Your task to perform on an android device: open app "Booking.com: Hotels and more" Image 0: 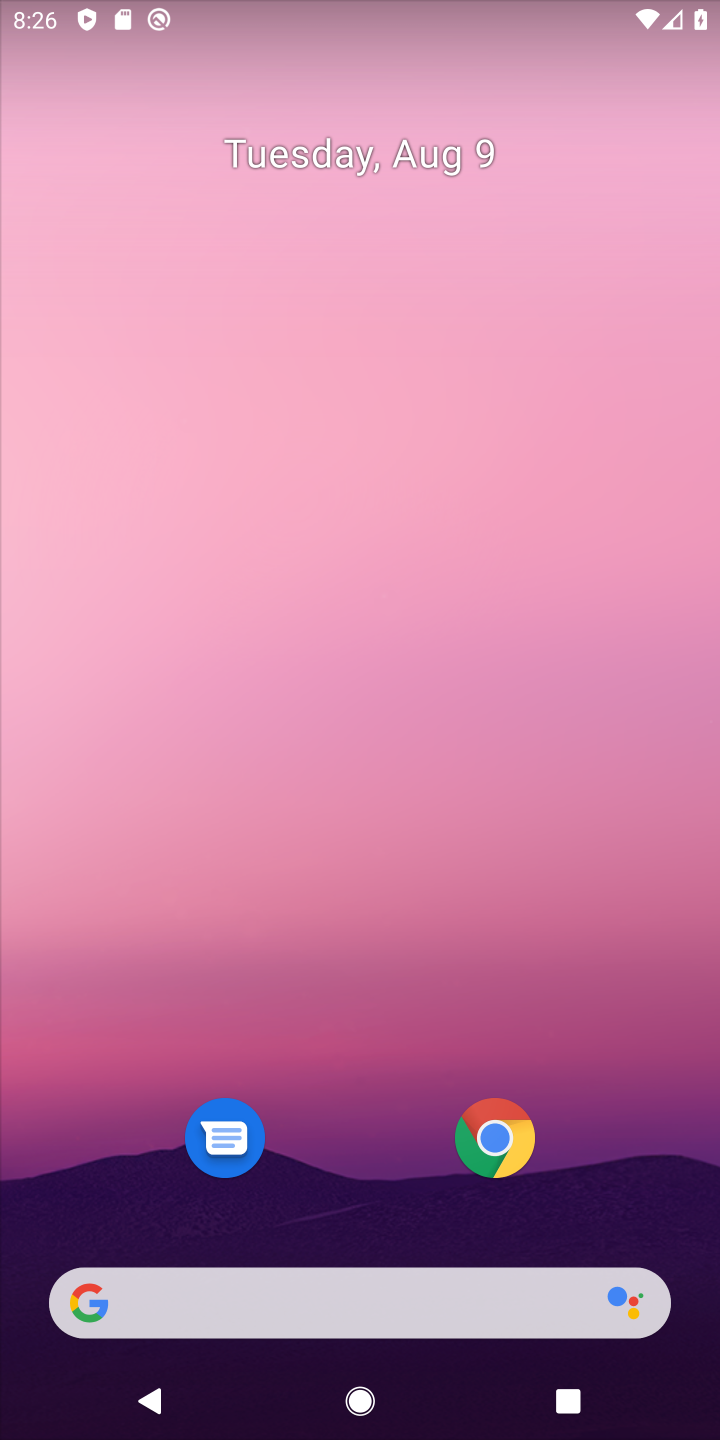
Step 0: drag from (361, 788) to (445, 274)
Your task to perform on an android device: open app "Booking.com: Hotels and more" Image 1: 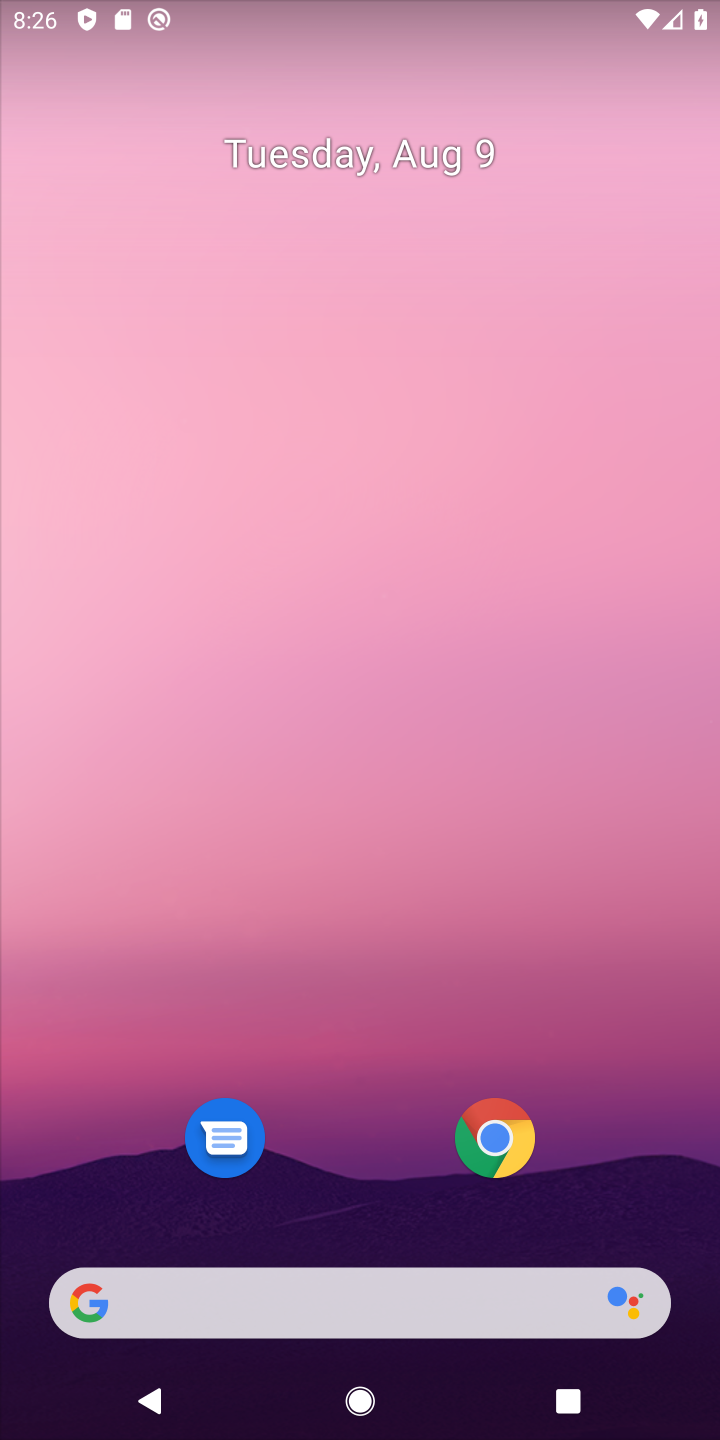
Step 1: drag from (365, 1075) to (522, 409)
Your task to perform on an android device: open app "Booking.com: Hotels and more" Image 2: 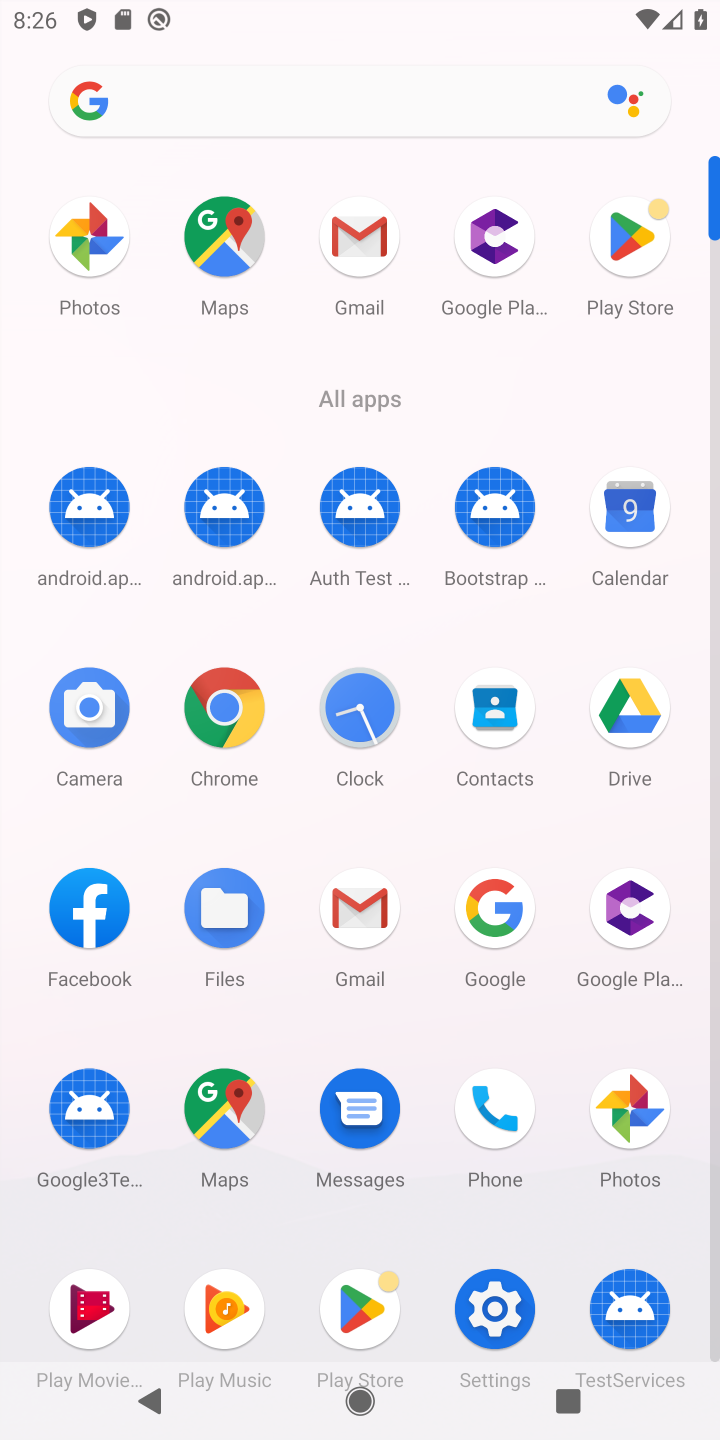
Step 2: click (370, 1328)
Your task to perform on an android device: open app "Booking.com: Hotels and more" Image 3: 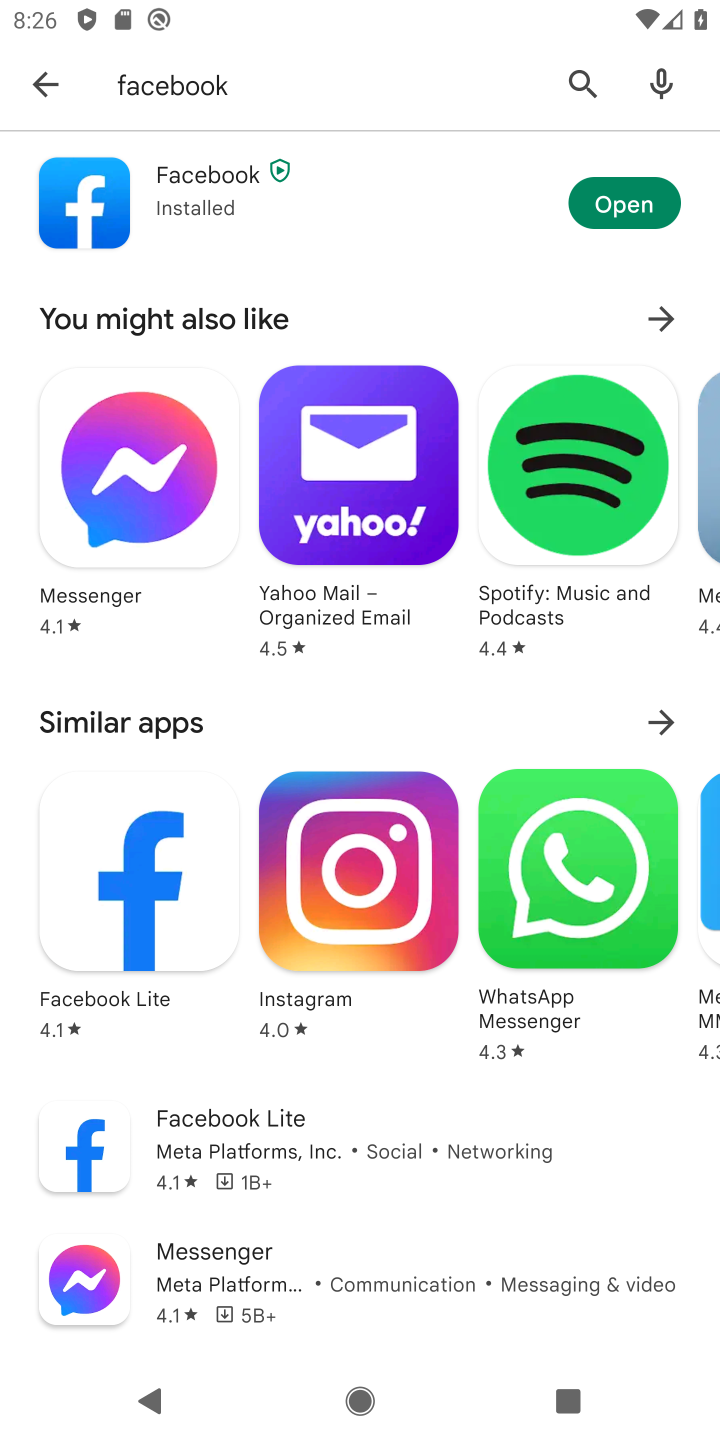
Step 3: click (556, 80)
Your task to perform on an android device: open app "Booking.com: Hotels and more" Image 4: 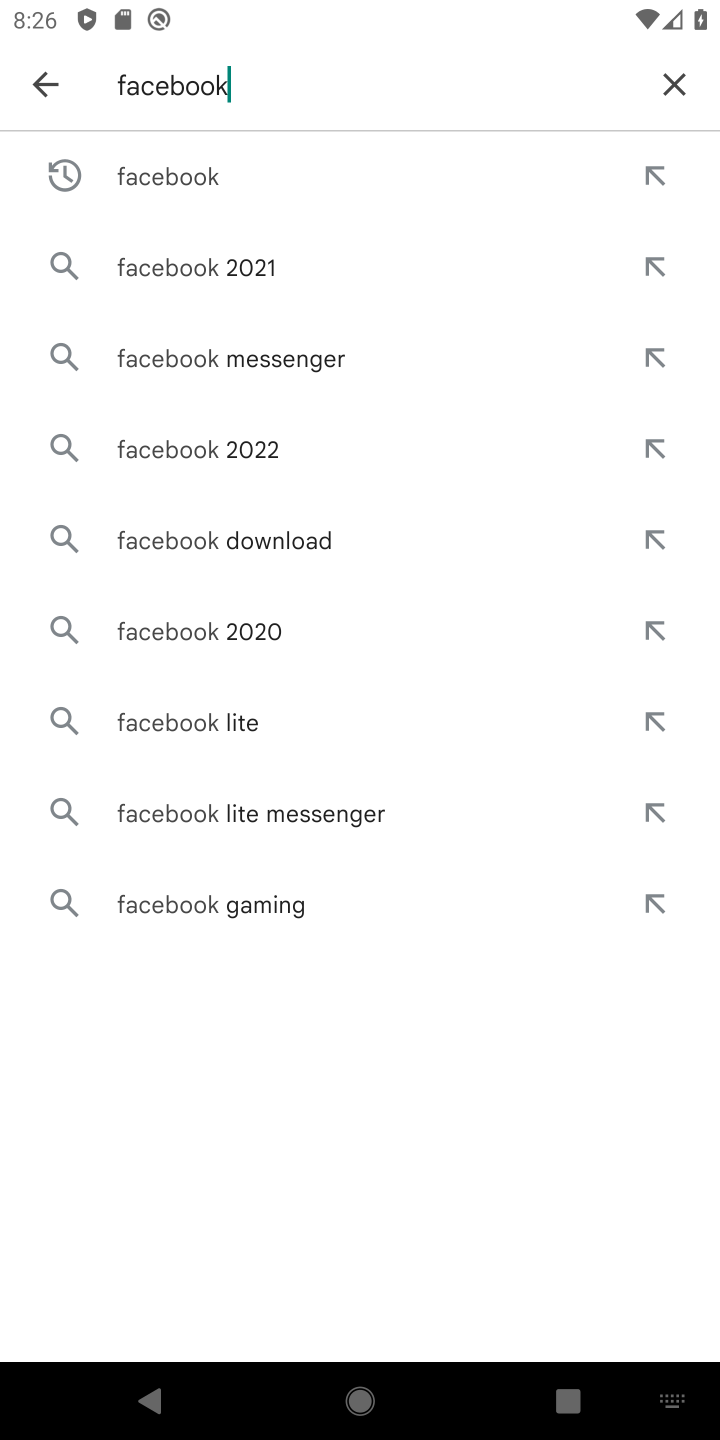
Step 4: click (670, 76)
Your task to perform on an android device: open app "Booking.com: Hotels and more" Image 5: 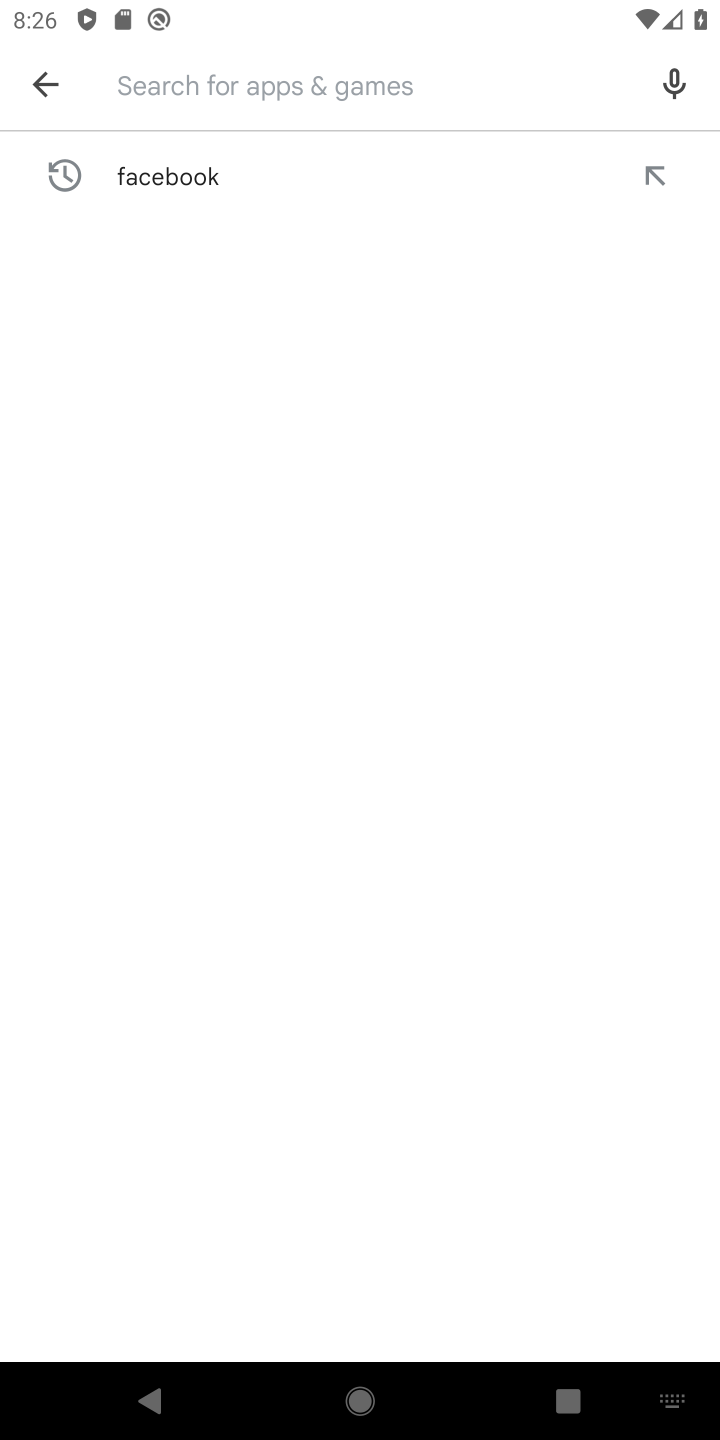
Step 5: type "Booking.com: Hotels and more"
Your task to perform on an android device: open app "Booking.com: Hotels and more" Image 6: 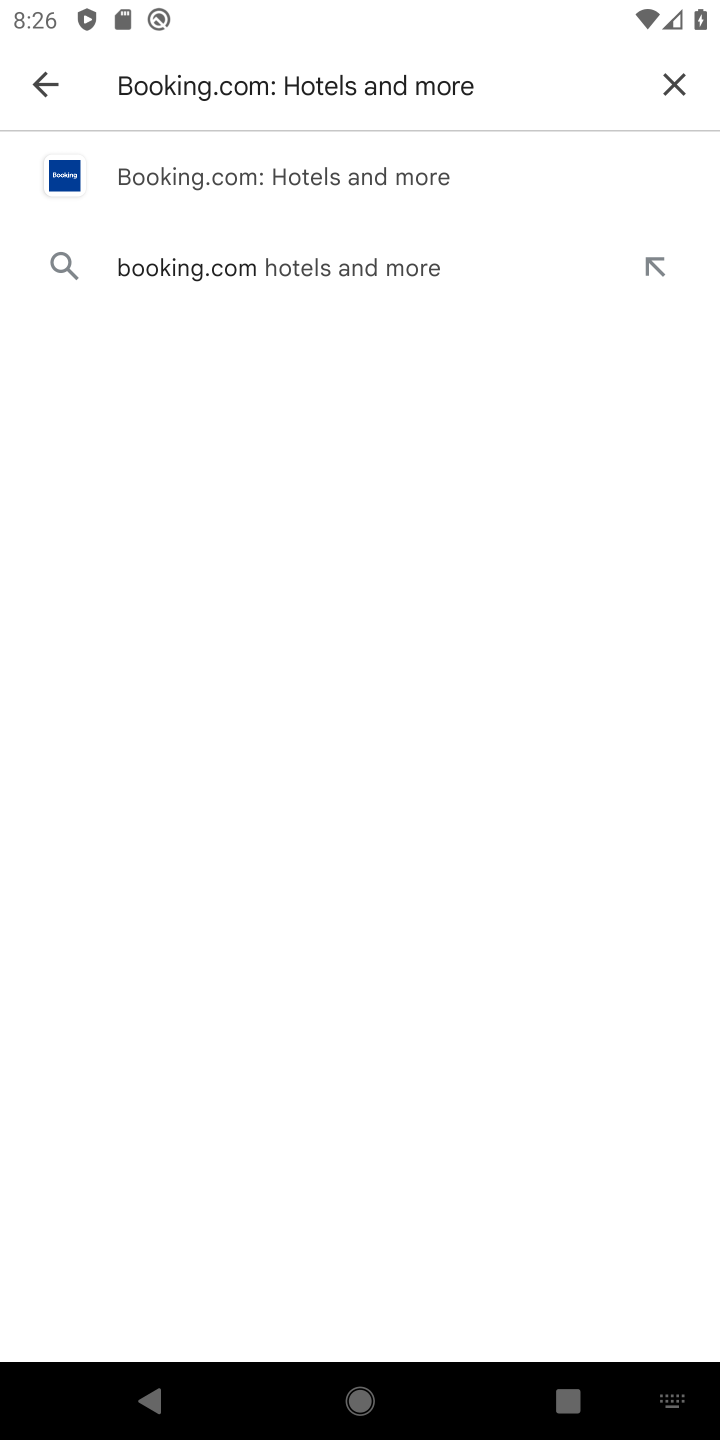
Step 6: click (237, 176)
Your task to perform on an android device: open app "Booking.com: Hotels and more" Image 7: 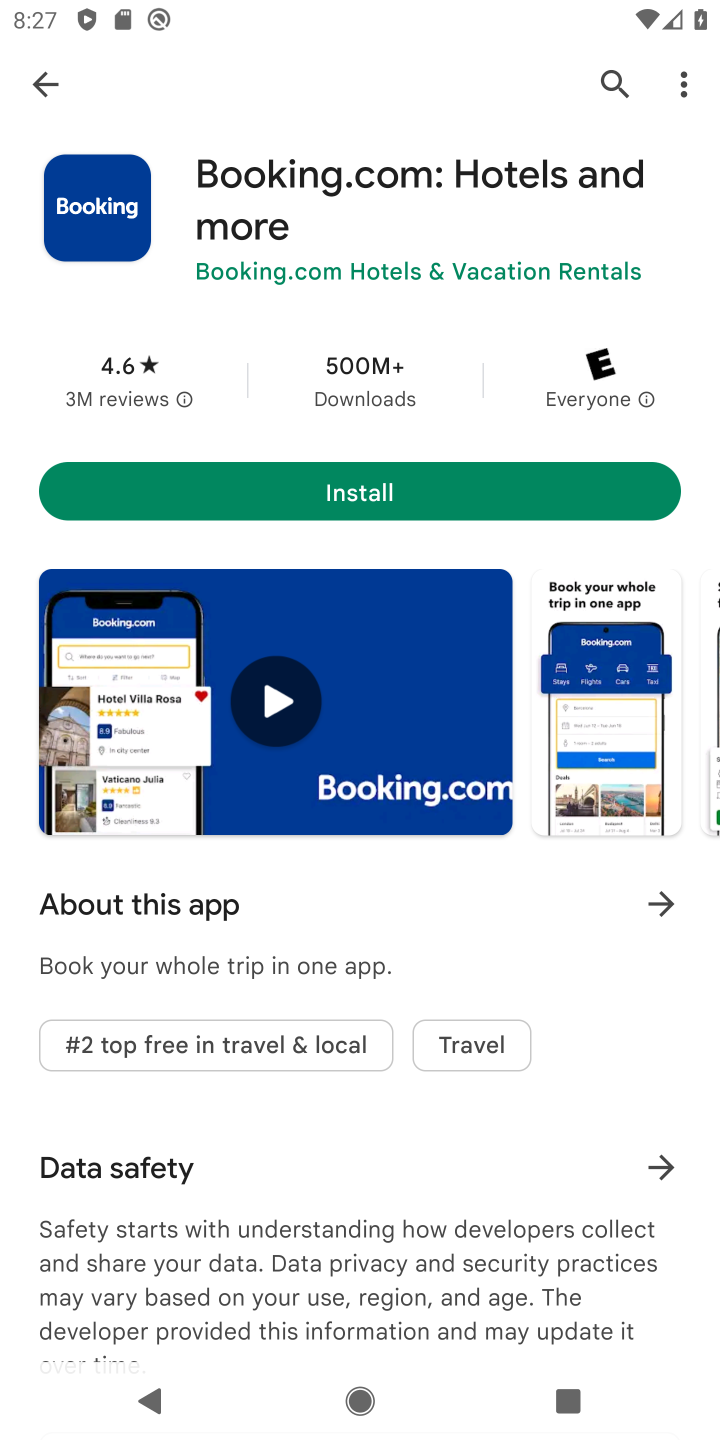
Step 7: task complete